Your task to perform on an android device: Open privacy settings Image 0: 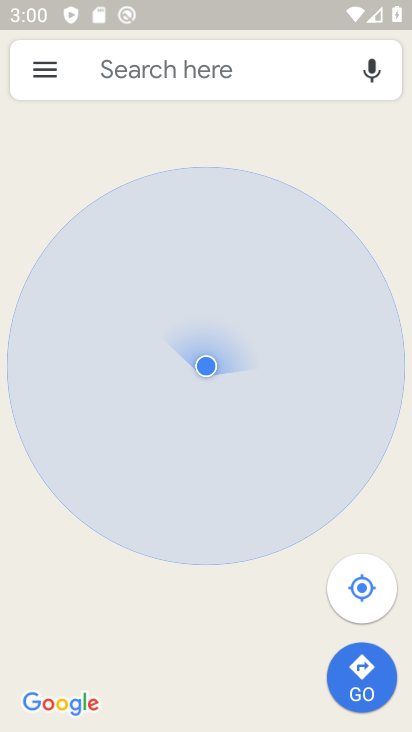
Step 0: press back button
Your task to perform on an android device: Open privacy settings Image 1: 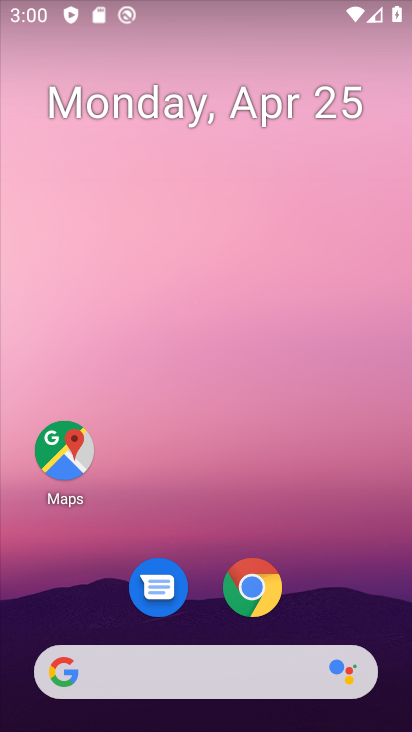
Step 1: drag from (306, 633) to (293, 219)
Your task to perform on an android device: Open privacy settings Image 2: 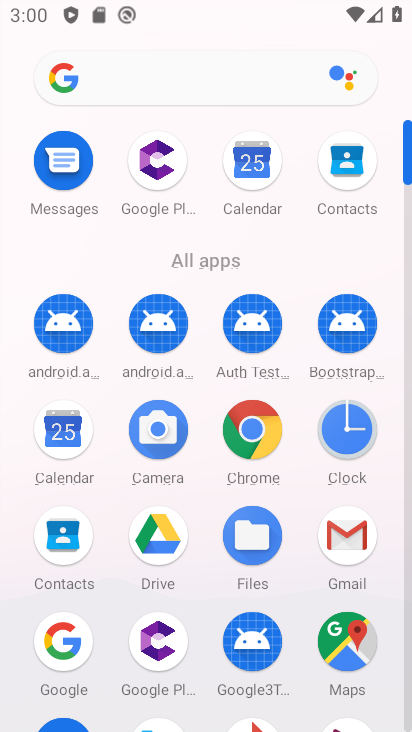
Step 2: drag from (136, 679) to (287, 63)
Your task to perform on an android device: Open privacy settings Image 3: 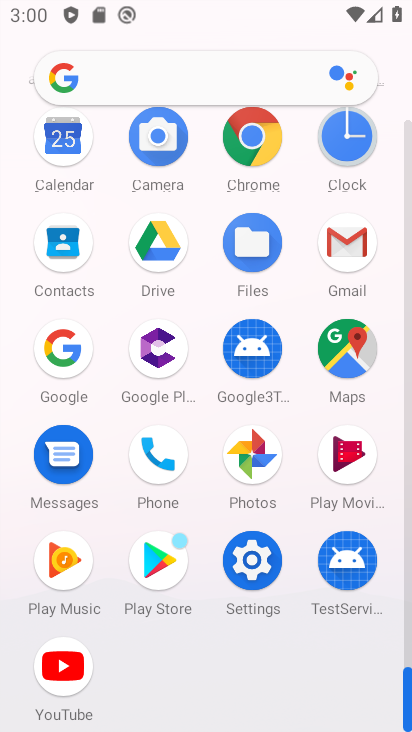
Step 3: click (254, 568)
Your task to perform on an android device: Open privacy settings Image 4: 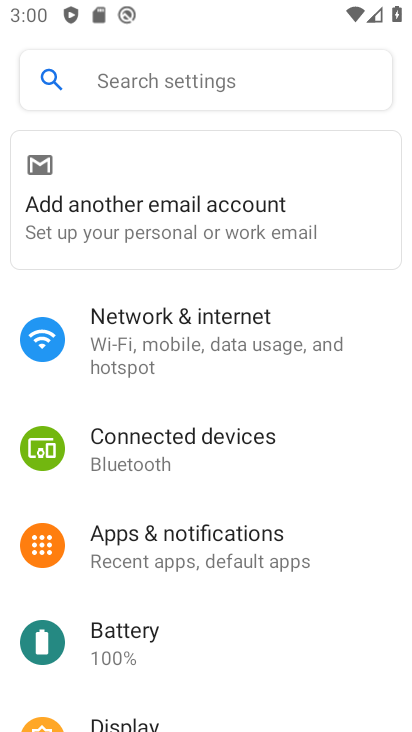
Step 4: drag from (260, 632) to (335, 66)
Your task to perform on an android device: Open privacy settings Image 5: 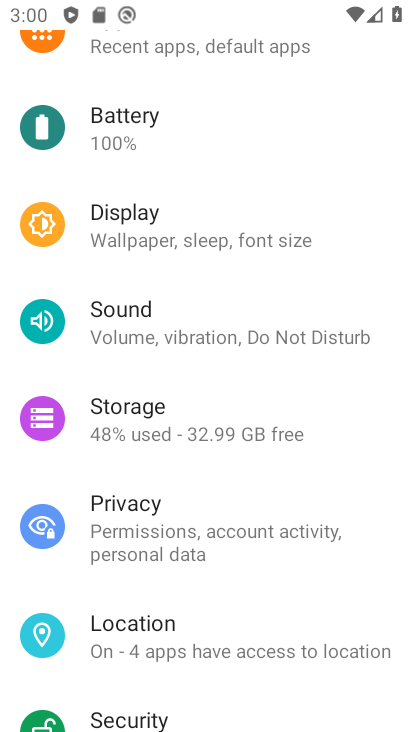
Step 5: click (201, 521)
Your task to perform on an android device: Open privacy settings Image 6: 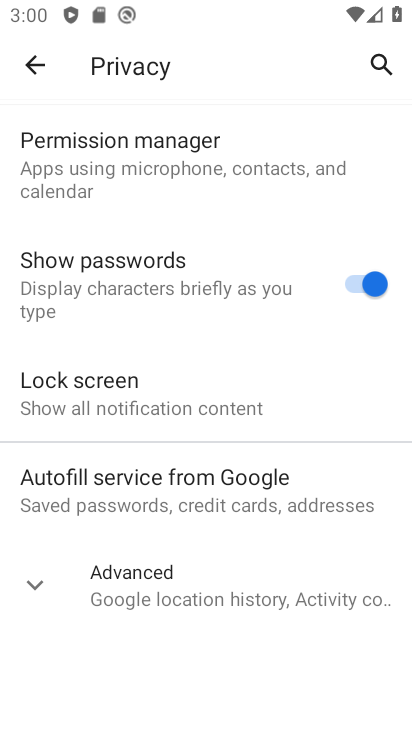
Step 6: task complete